Your task to perform on an android device: Check the weather Image 0: 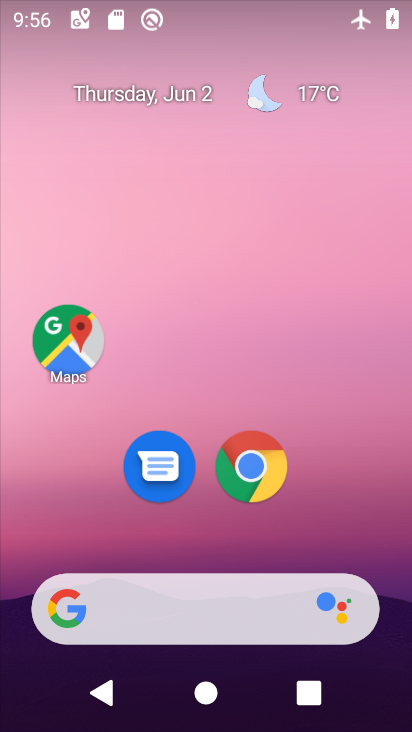
Step 0: click (244, 465)
Your task to perform on an android device: Check the weather Image 1: 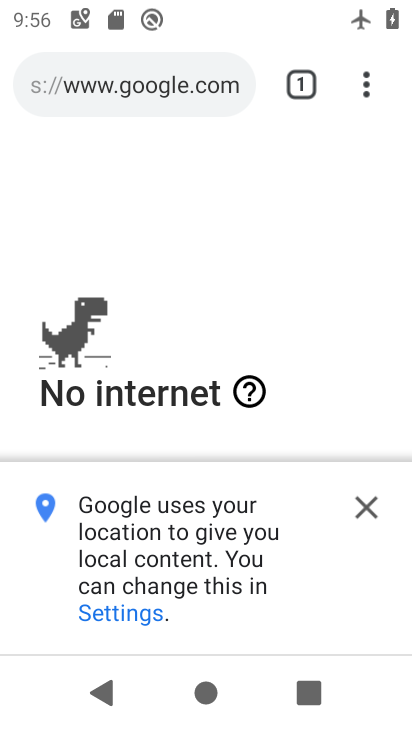
Step 1: click (364, 88)
Your task to perform on an android device: Check the weather Image 2: 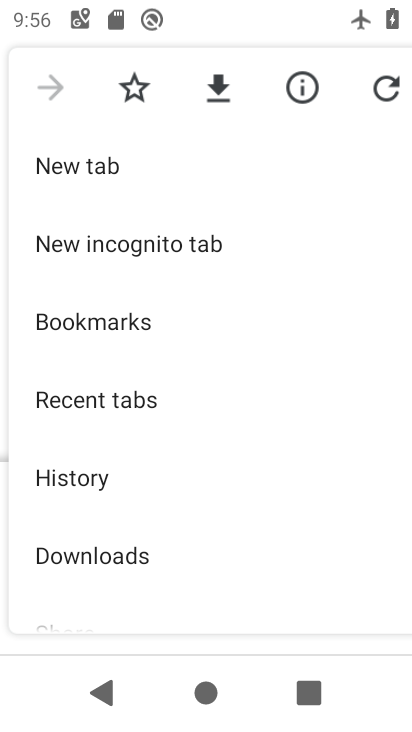
Step 2: click (134, 155)
Your task to perform on an android device: Check the weather Image 3: 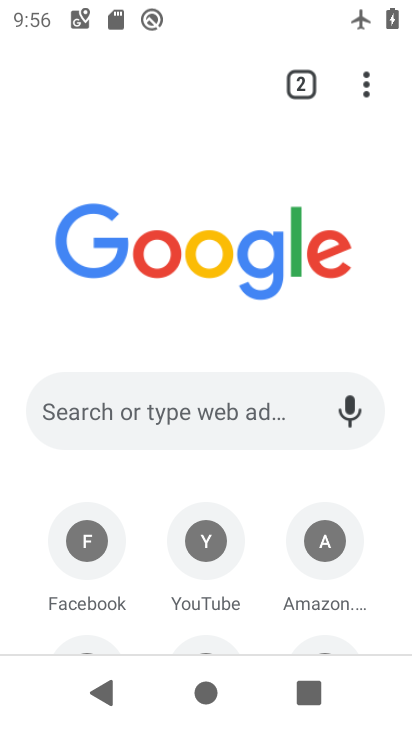
Step 3: click (209, 409)
Your task to perform on an android device: Check the weather Image 4: 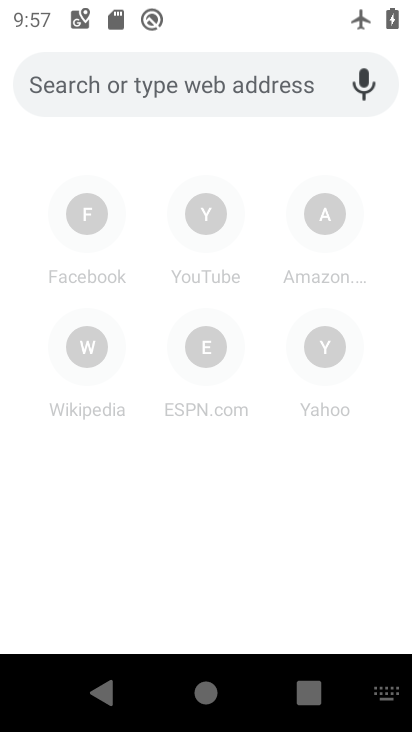
Step 4: type "Check the weather"
Your task to perform on an android device: Check the weather Image 5: 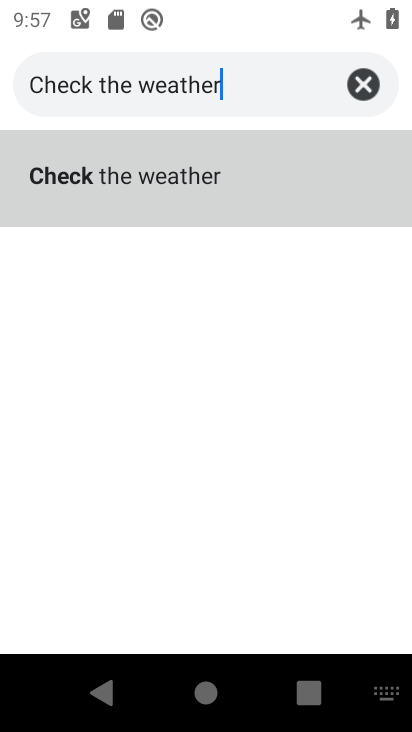
Step 5: click (155, 192)
Your task to perform on an android device: Check the weather Image 6: 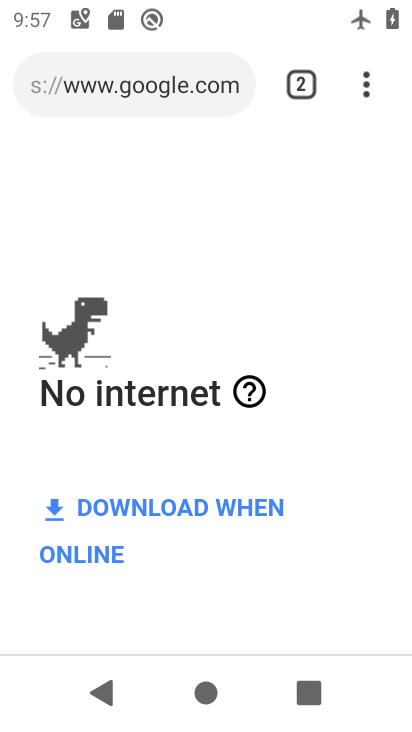
Step 6: task complete